Your task to perform on an android device: turn off improve location accuracy Image 0: 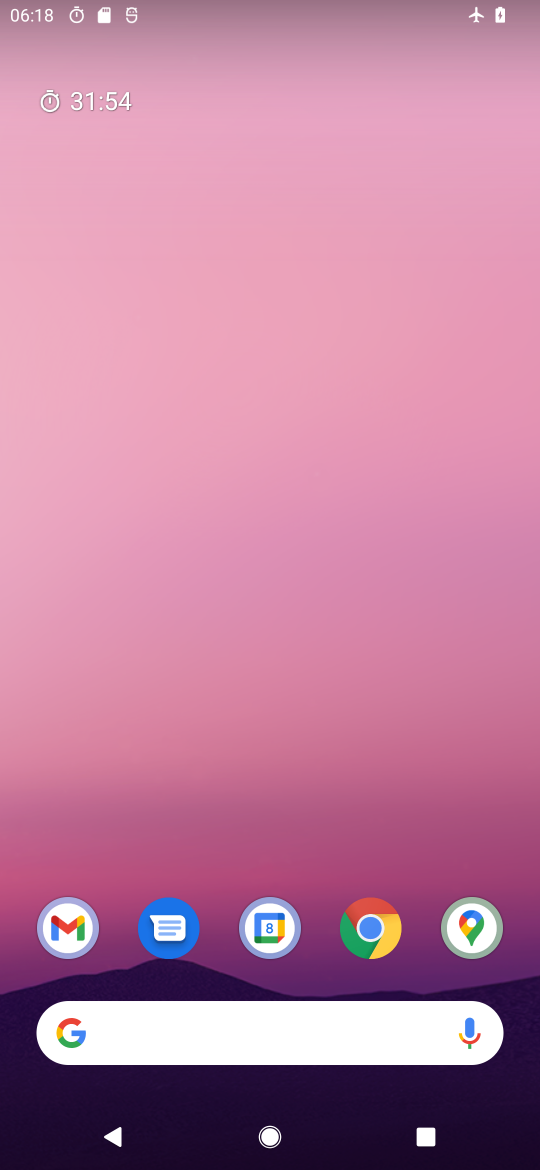
Step 0: click (243, 203)
Your task to perform on an android device: turn off improve location accuracy Image 1: 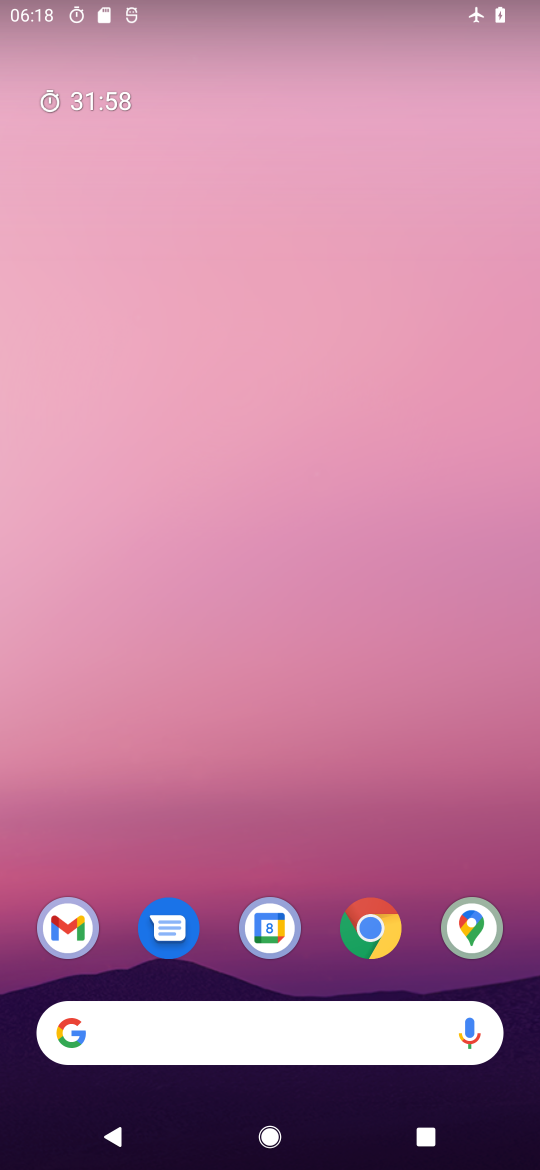
Step 1: drag from (245, 985) to (227, 255)
Your task to perform on an android device: turn off improve location accuracy Image 2: 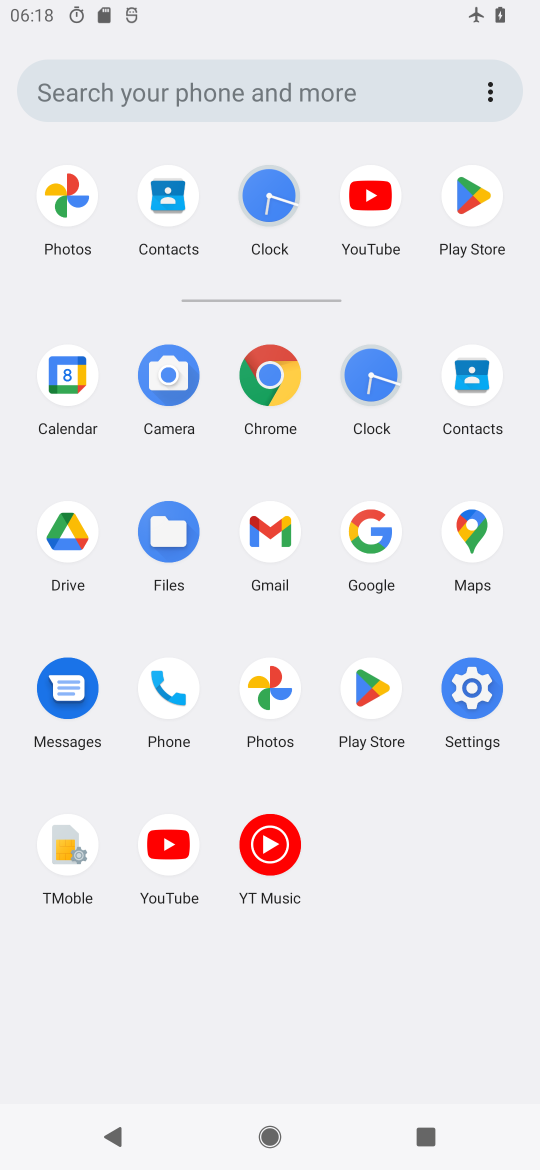
Step 2: click (476, 692)
Your task to perform on an android device: turn off improve location accuracy Image 3: 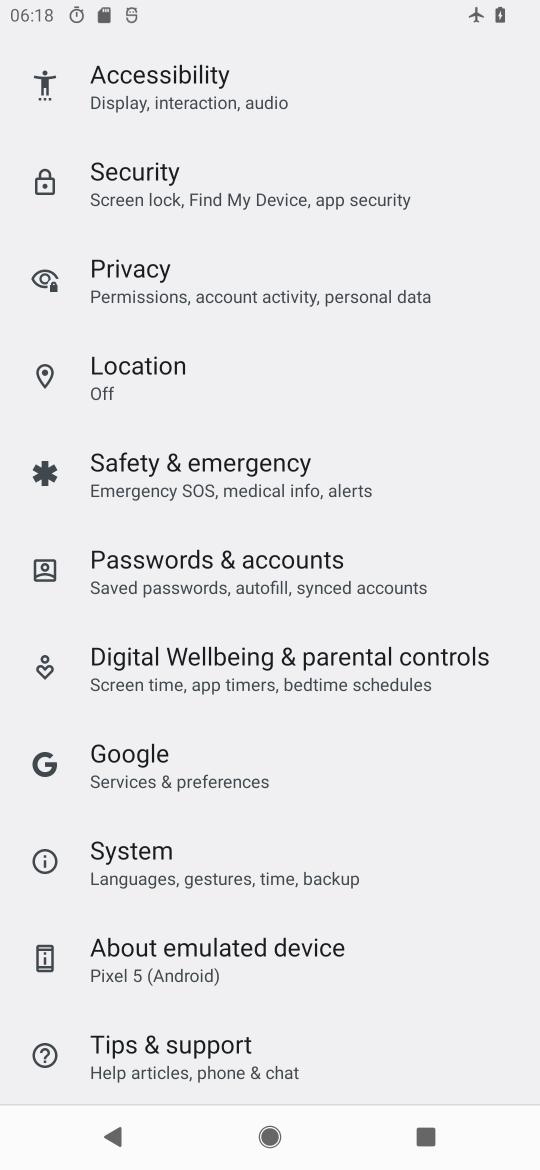
Step 3: click (170, 377)
Your task to perform on an android device: turn off improve location accuracy Image 4: 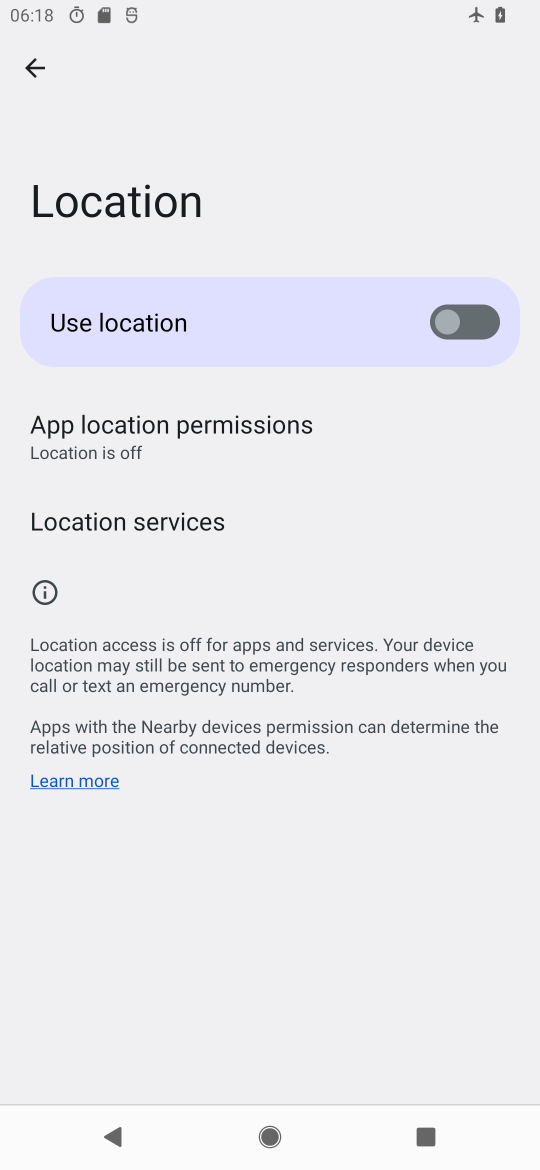
Step 4: click (144, 523)
Your task to perform on an android device: turn off improve location accuracy Image 5: 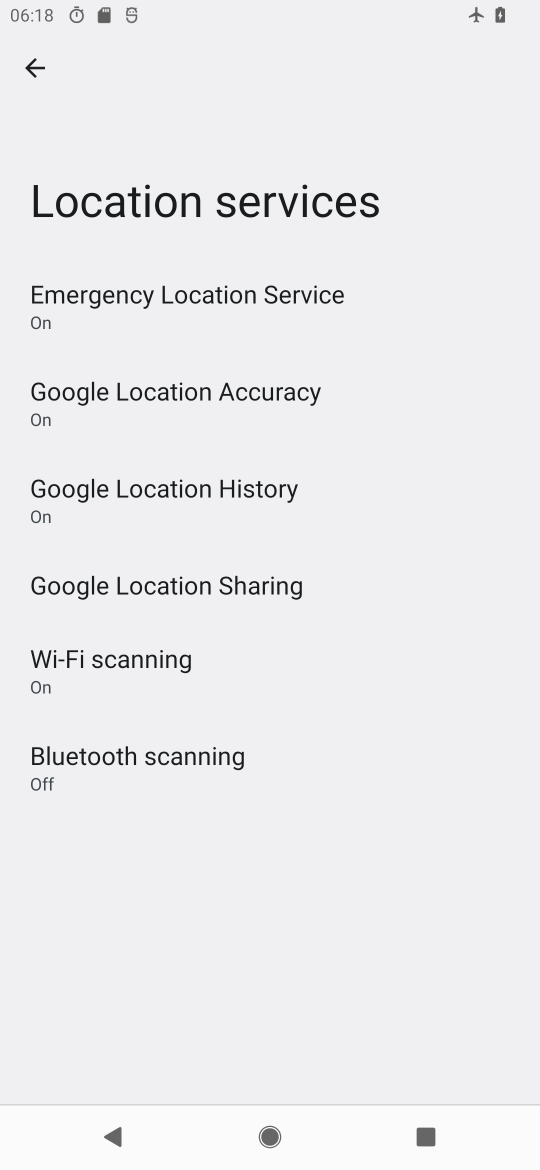
Step 5: click (233, 406)
Your task to perform on an android device: turn off improve location accuracy Image 6: 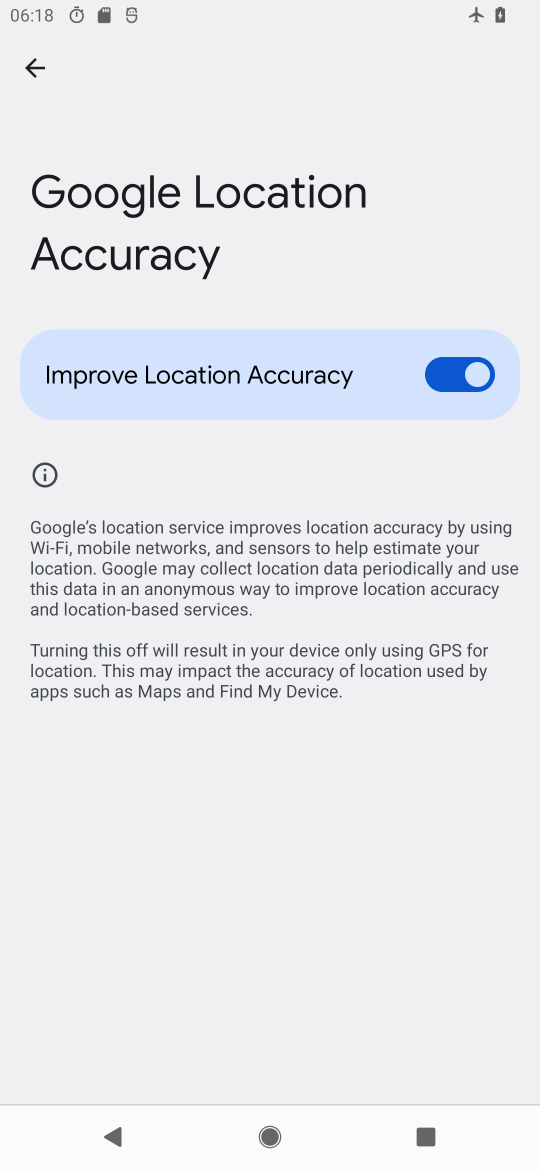
Step 6: click (428, 364)
Your task to perform on an android device: turn off improve location accuracy Image 7: 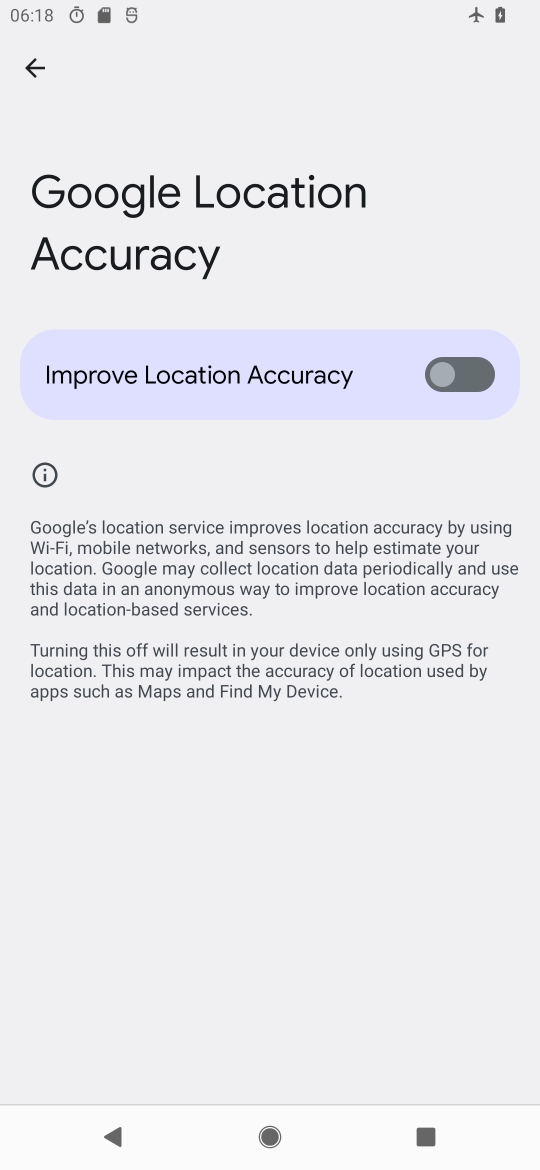
Step 7: task complete